Your task to perform on an android device: create a new album in the google photos Image 0: 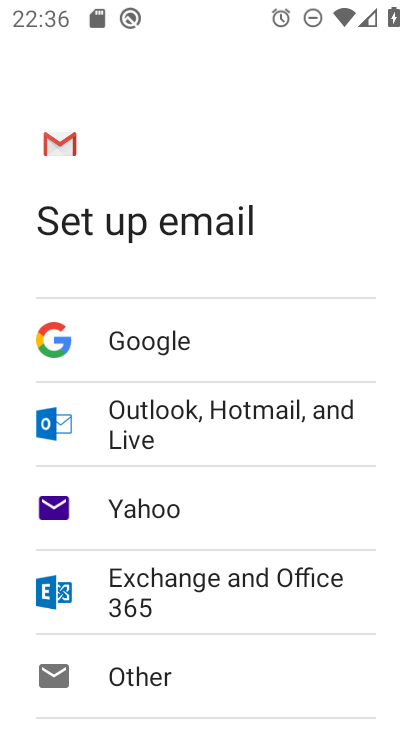
Step 0: drag from (254, 607) to (261, 344)
Your task to perform on an android device: create a new album in the google photos Image 1: 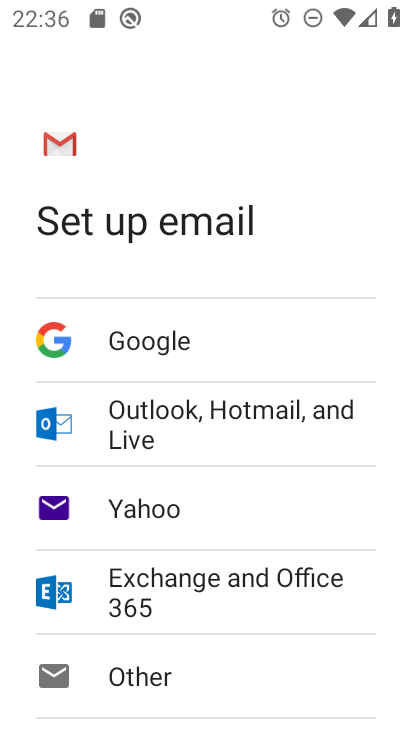
Step 1: press home button
Your task to perform on an android device: create a new album in the google photos Image 2: 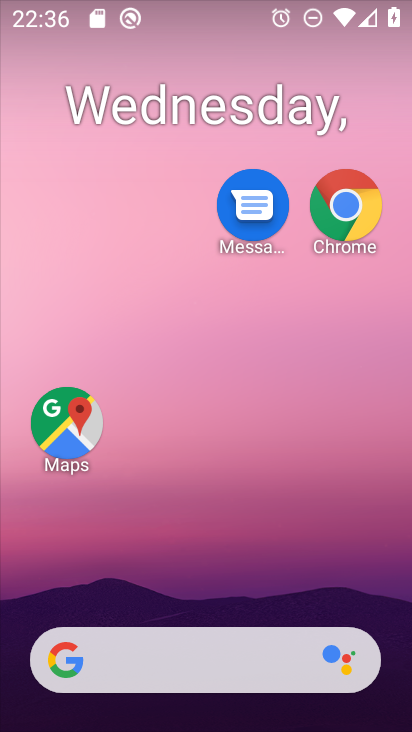
Step 2: drag from (157, 605) to (222, 68)
Your task to perform on an android device: create a new album in the google photos Image 3: 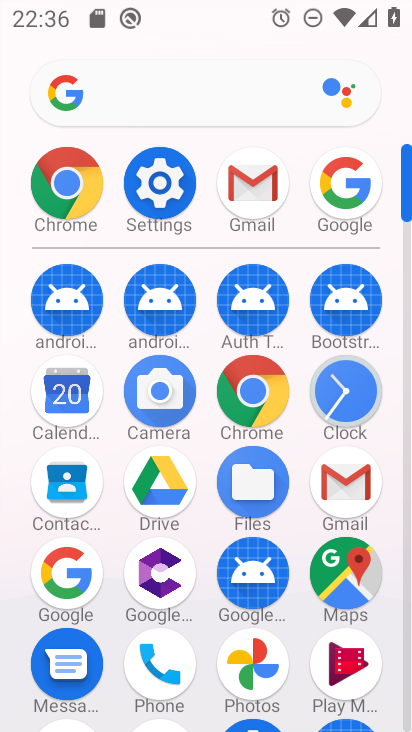
Step 3: click (264, 654)
Your task to perform on an android device: create a new album in the google photos Image 4: 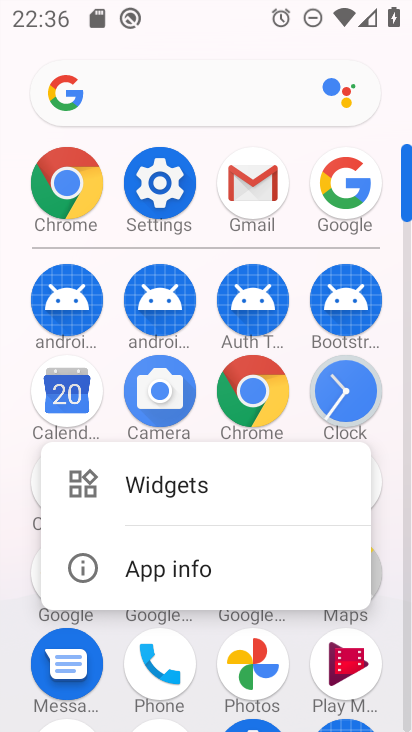
Step 4: click (131, 565)
Your task to perform on an android device: create a new album in the google photos Image 5: 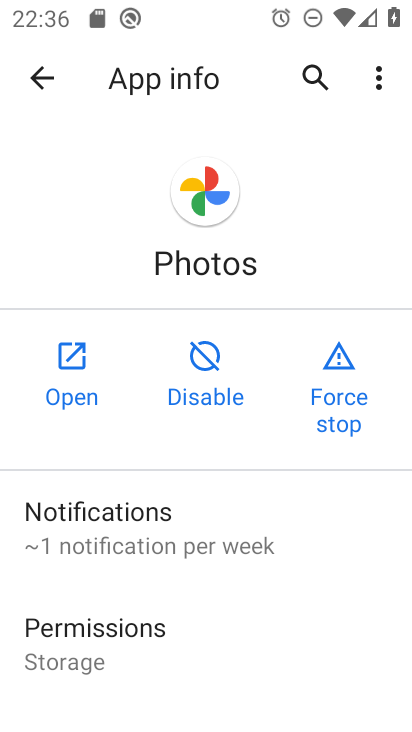
Step 5: click (82, 347)
Your task to perform on an android device: create a new album in the google photos Image 6: 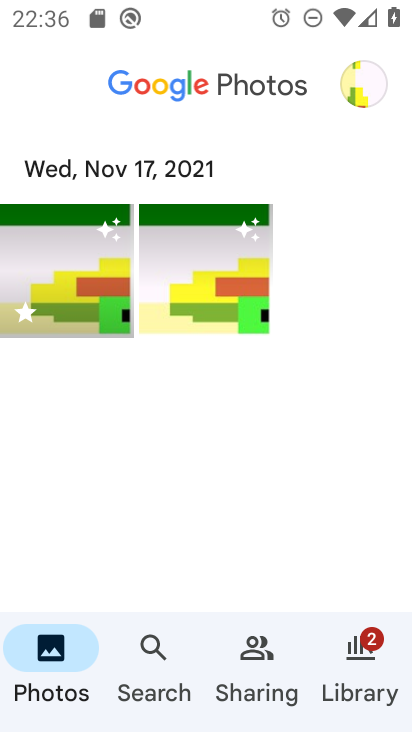
Step 6: click (326, 678)
Your task to perform on an android device: create a new album in the google photos Image 7: 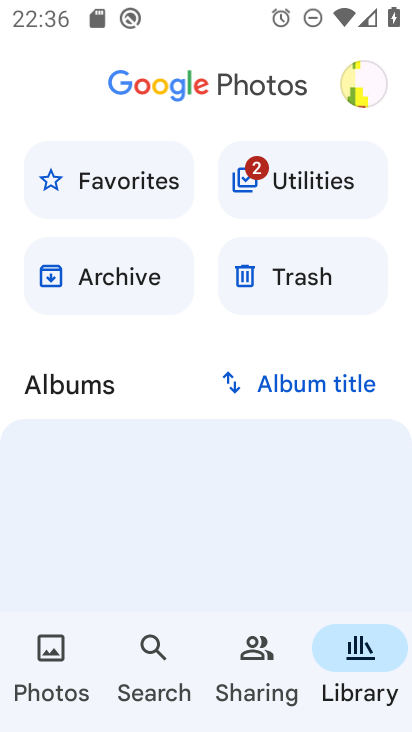
Step 7: drag from (178, 465) to (264, 43)
Your task to perform on an android device: create a new album in the google photos Image 8: 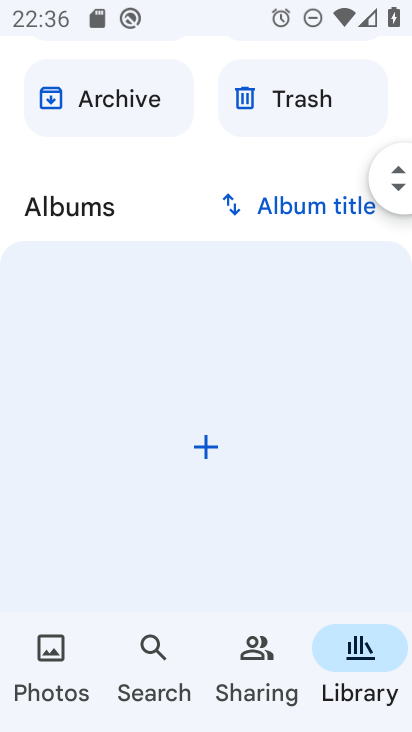
Step 8: click (209, 438)
Your task to perform on an android device: create a new album in the google photos Image 9: 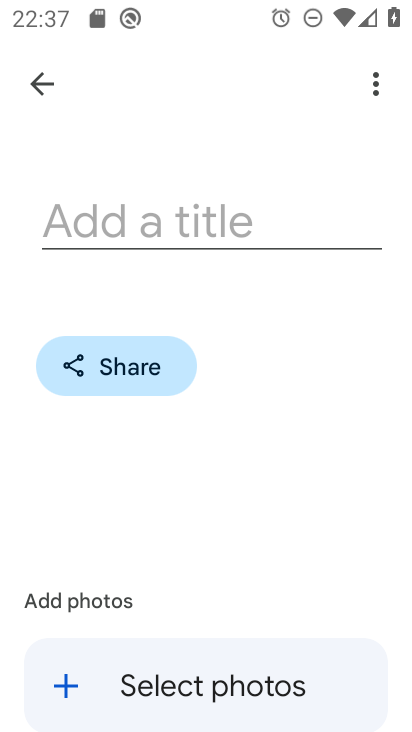
Step 9: click (169, 210)
Your task to perform on an android device: create a new album in the google photos Image 10: 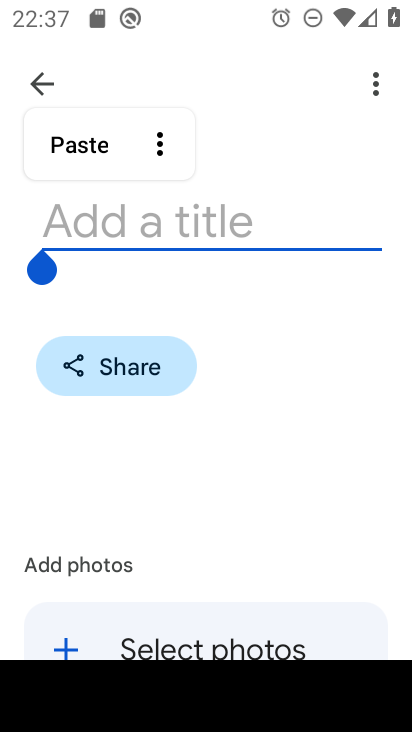
Step 10: type "njk"
Your task to perform on an android device: create a new album in the google photos Image 11: 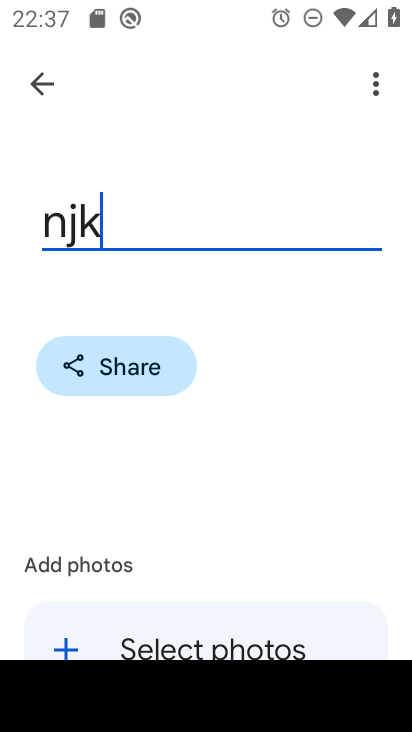
Step 11: drag from (187, 492) to (214, 141)
Your task to perform on an android device: create a new album in the google photos Image 12: 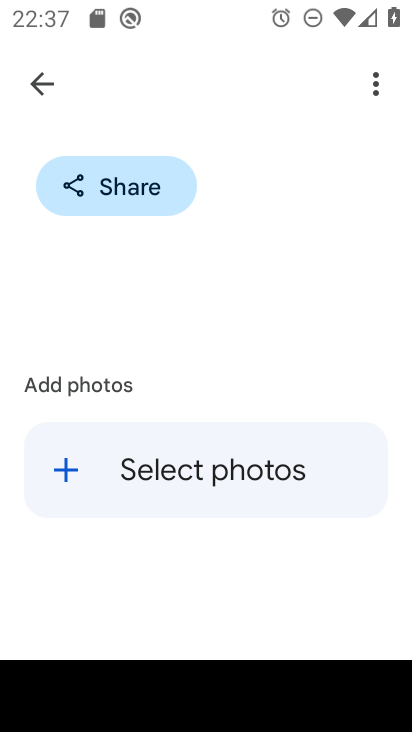
Step 12: click (79, 471)
Your task to perform on an android device: create a new album in the google photos Image 13: 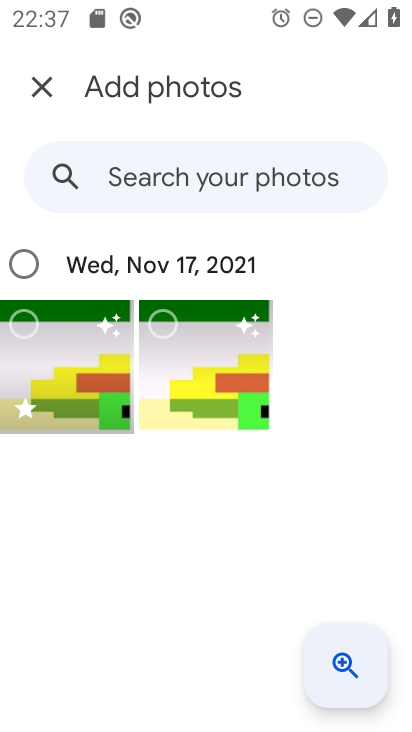
Step 13: click (138, 411)
Your task to perform on an android device: create a new album in the google photos Image 14: 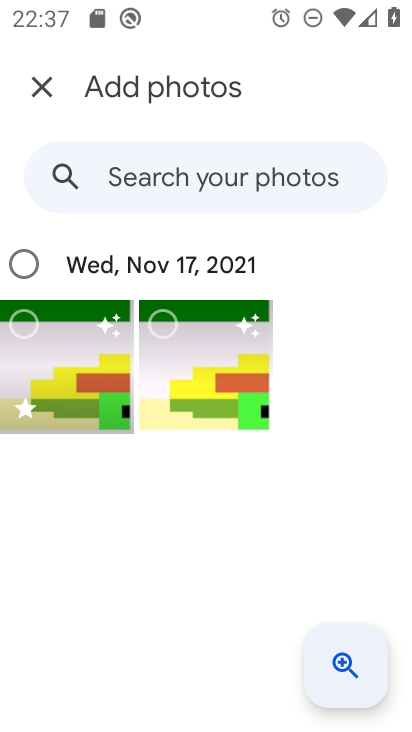
Step 14: click (53, 384)
Your task to perform on an android device: create a new album in the google photos Image 15: 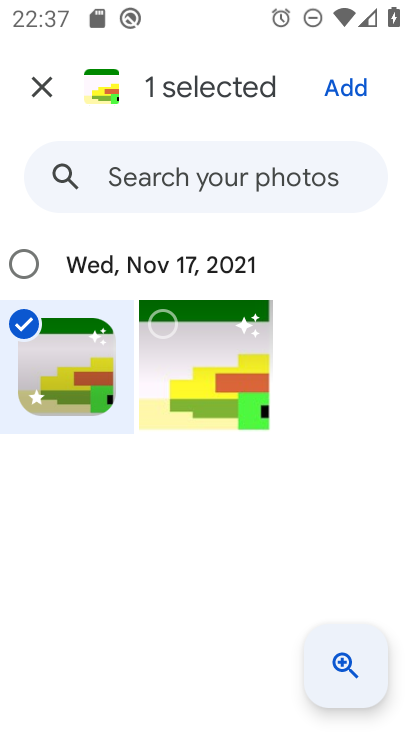
Step 15: click (198, 352)
Your task to perform on an android device: create a new album in the google photos Image 16: 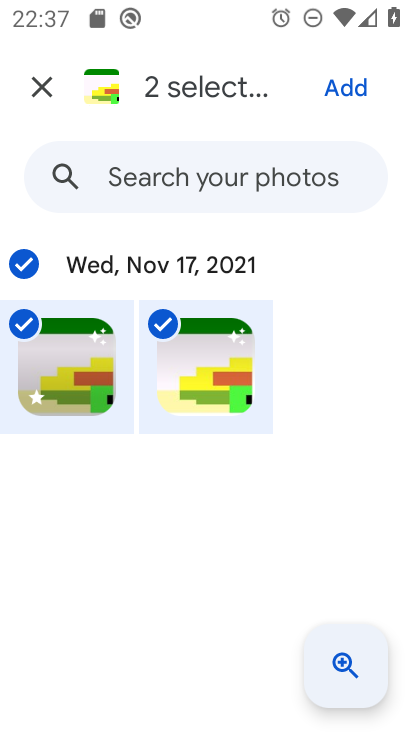
Step 16: click (343, 74)
Your task to perform on an android device: create a new album in the google photos Image 17: 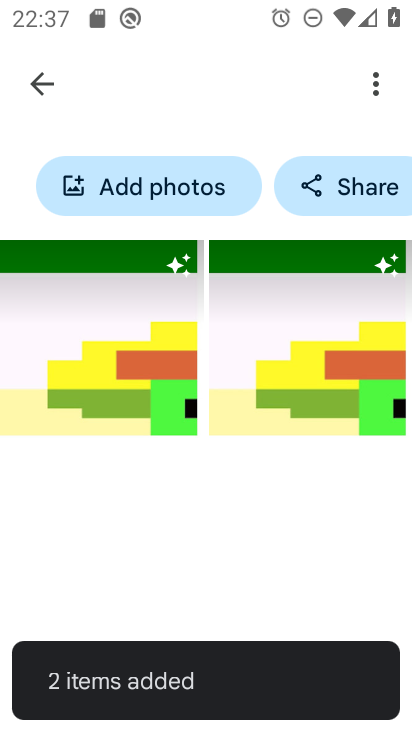
Step 17: task complete